Your task to perform on an android device: see creations saved in the google photos Image 0: 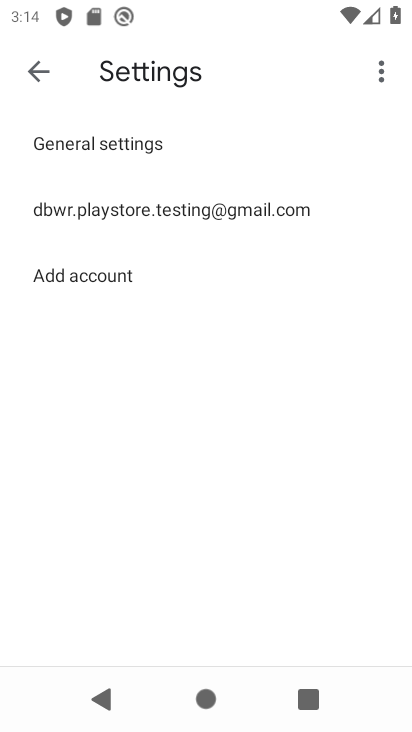
Step 0: press home button
Your task to perform on an android device: see creations saved in the google photos Image 1: 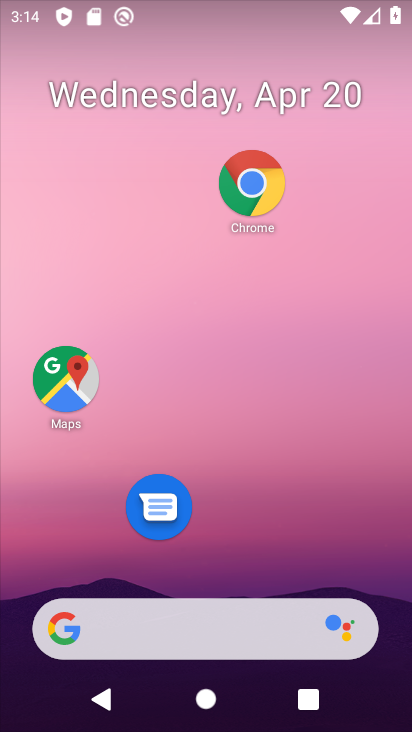
Step 1: drag from (214, 489) to (214, 139)
Your task to perform on an android device: see creations saved in the google photos Image 2: 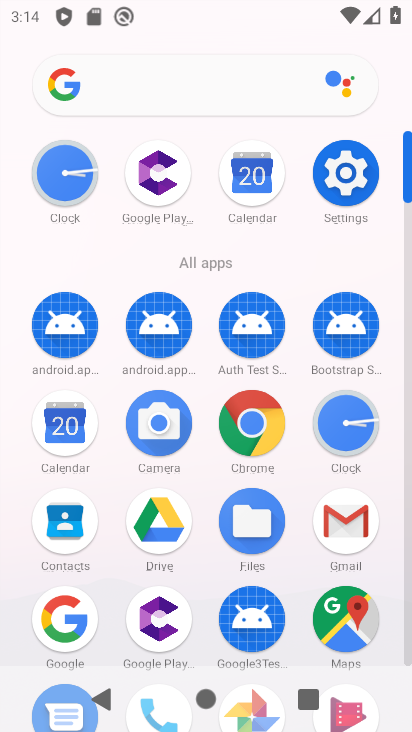
Step 2: drag from (195, 379) to (206, 233)
Your task to perform on an android device: see creations saved in the google photos Image 3: 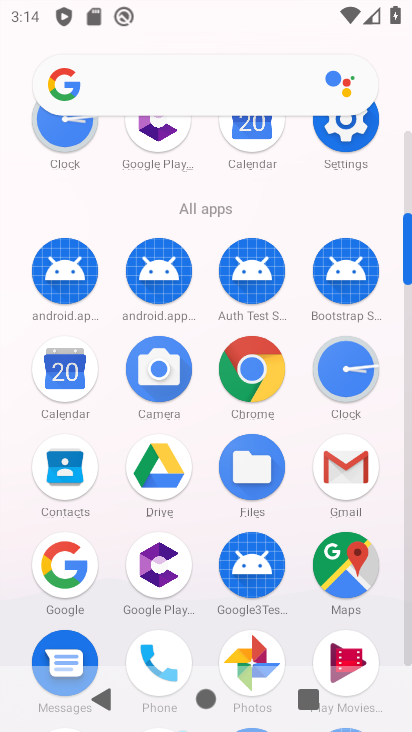
Step 3: click (238, 637)
Your task to perform on an android device: see creations saved in the google photos Image 4: 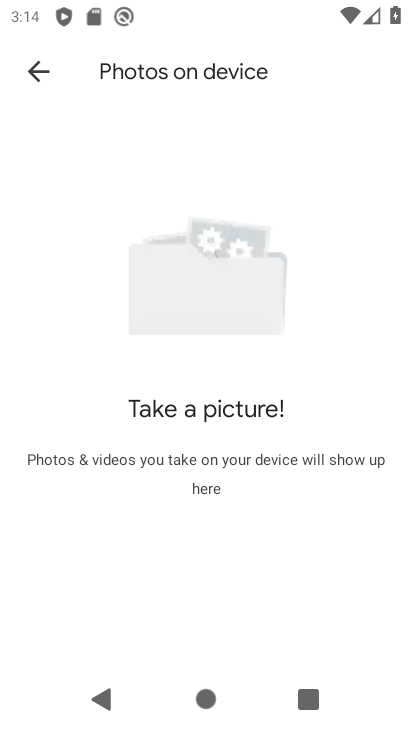
Step 4: click (43, 74)
Your task to perform on an android device: see creations saved in the google photos Image 5: 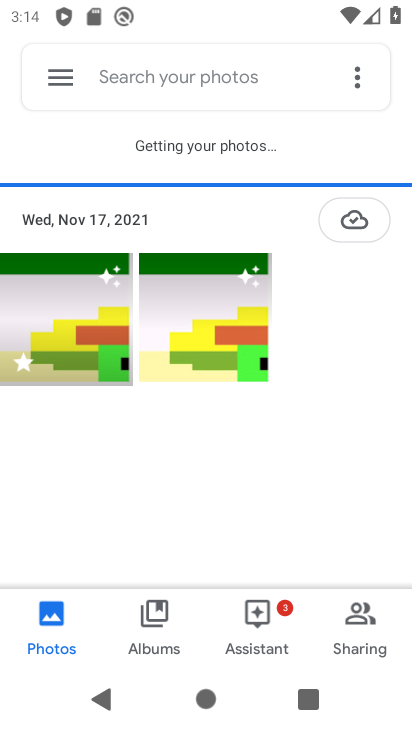
Step 5: click (208, 89)
Your task to perform on an android device: see creations saved in the google photos Image 6: 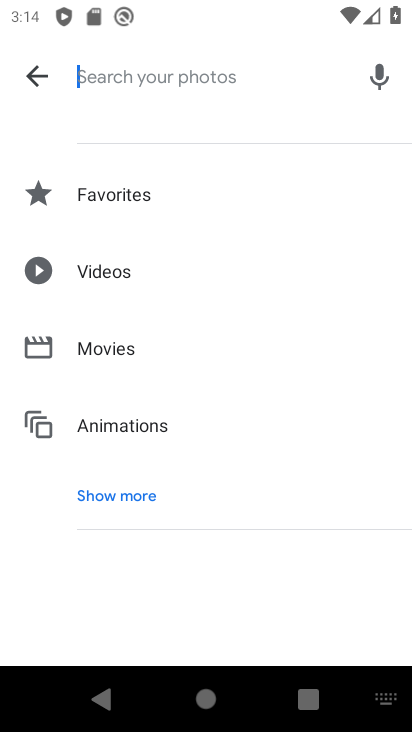
Step 6: click (147, 490)
Your task to perform on an android device: see creations saved in the google photos Image 7: 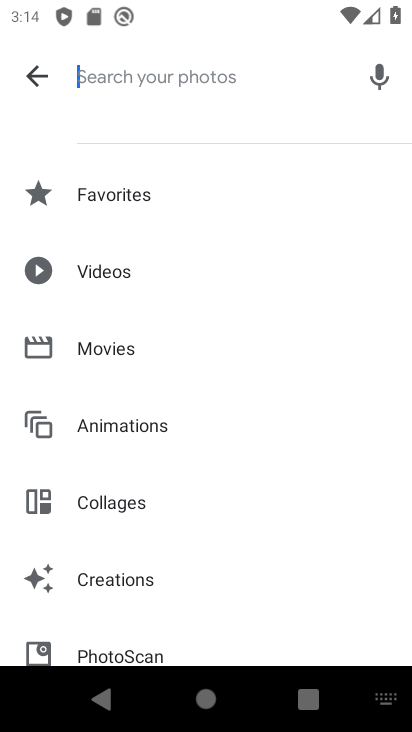
Step 7: click (167, 582)
Your task to perform on an android device: see creations saved in the google photos Image 8: 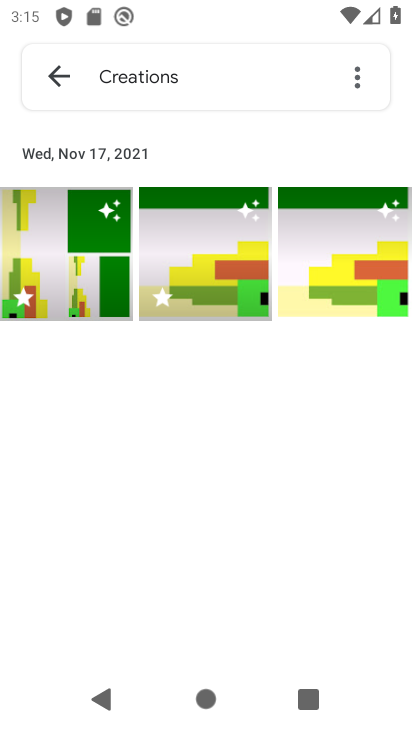
Step 8: task complete